Your task to perform on an android device: change the clock display to analog Image 0: 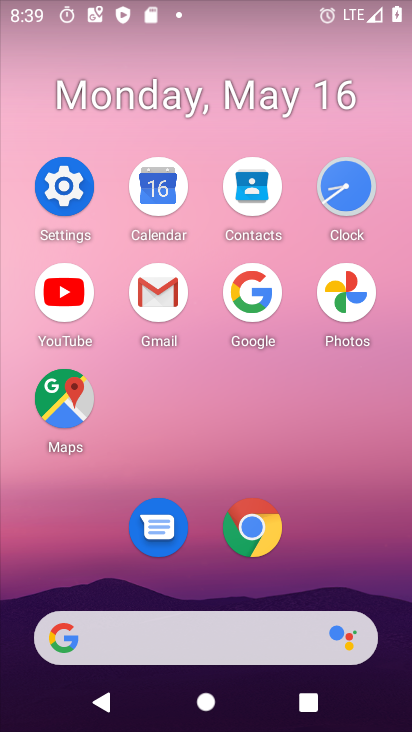
Step 0: click (334, 186)
Your task to perform on an android device: change the clock display to analog Image 1: 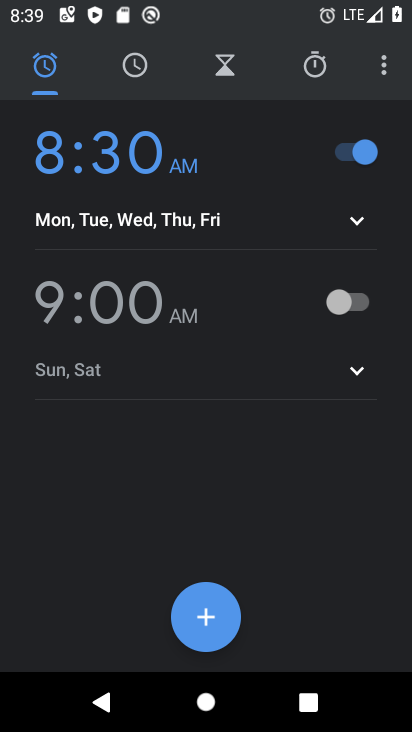
Step 1: click (378, 66)
Your task to perform on an android device: change the clock display to analog Image 2: 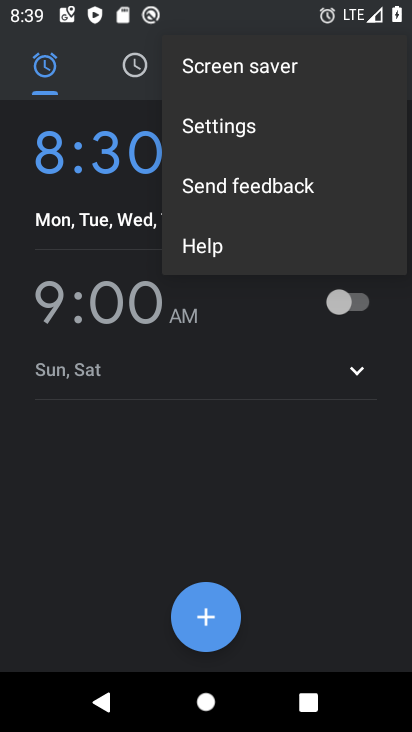
Step 2: click (187, 140)
Your task to perform on an android device: change the clock display to analog Image 3: 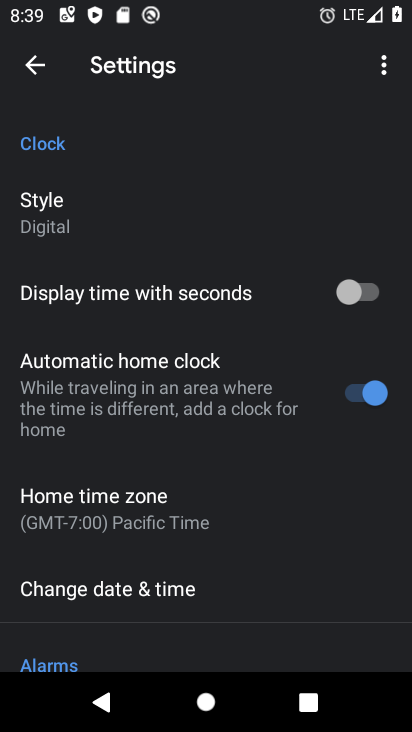
Step 3: click (86, 226)
Your task to perform on an android device: change the clock display to analog Image 4: 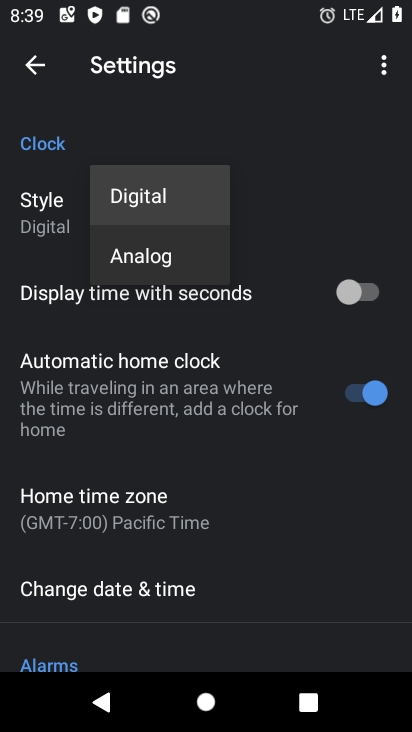
Step 4: click (189, 248)
Your task to perform on an android device: change the clock display to analog Image 5: 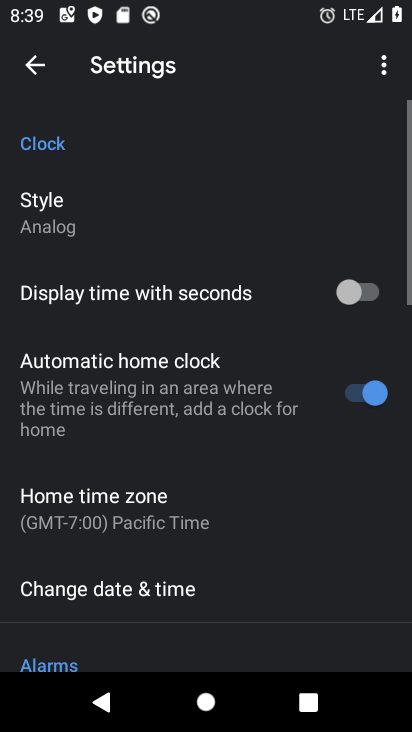
Step 5: task complete